Your task to perform on an android device: Is it going to rain tomorrow? Image 0: 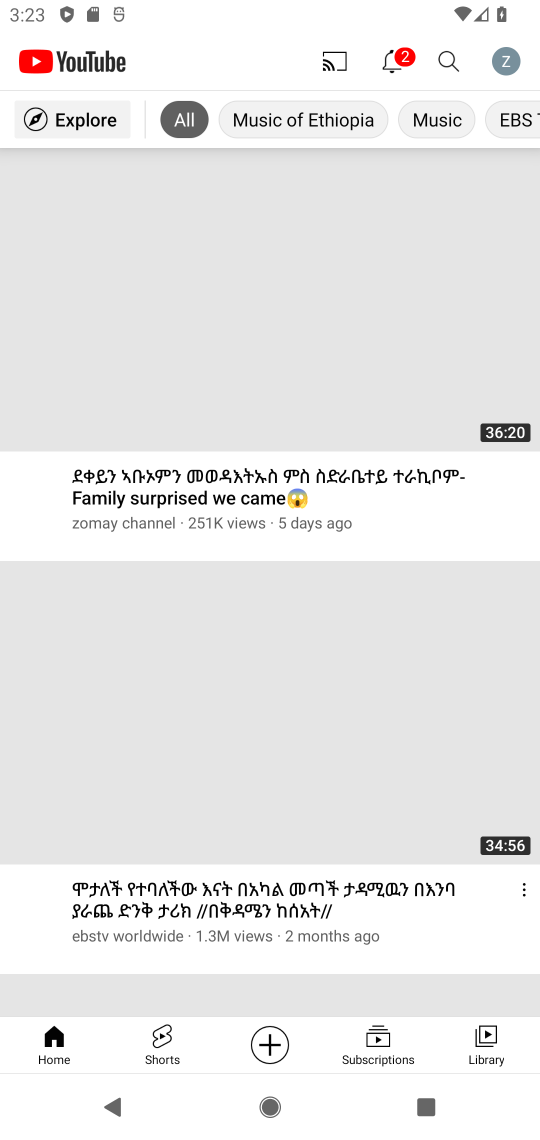
Step 0: press home button
Your task to perform on an android device: Is it going to rain tomorrow? Image 1: 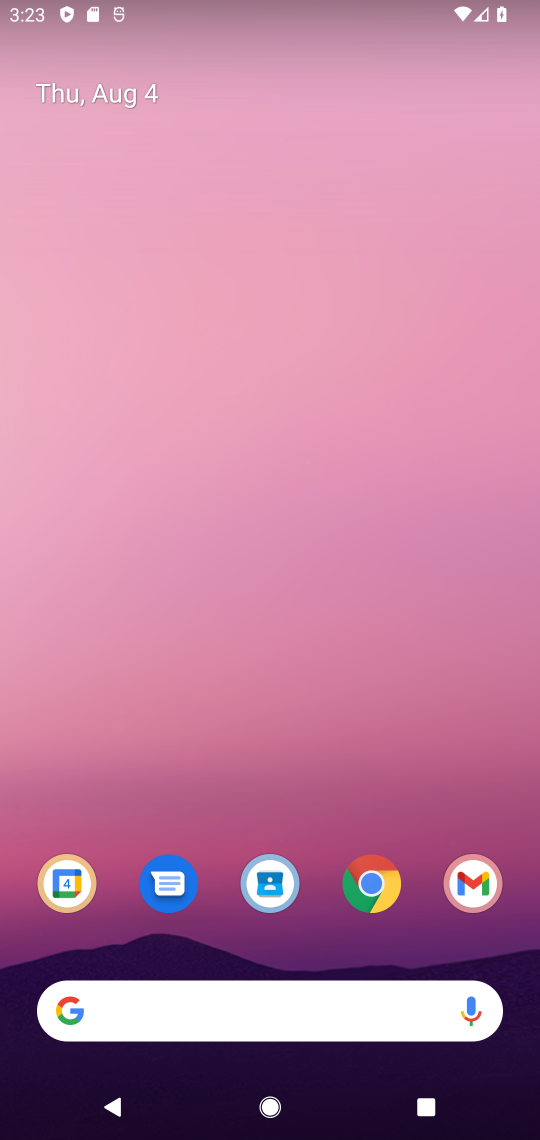
Step 1: drag from (410, 861) to (241, 101)
Your task to perform on an android device: Is it going to rain tomorrow? Image 2: 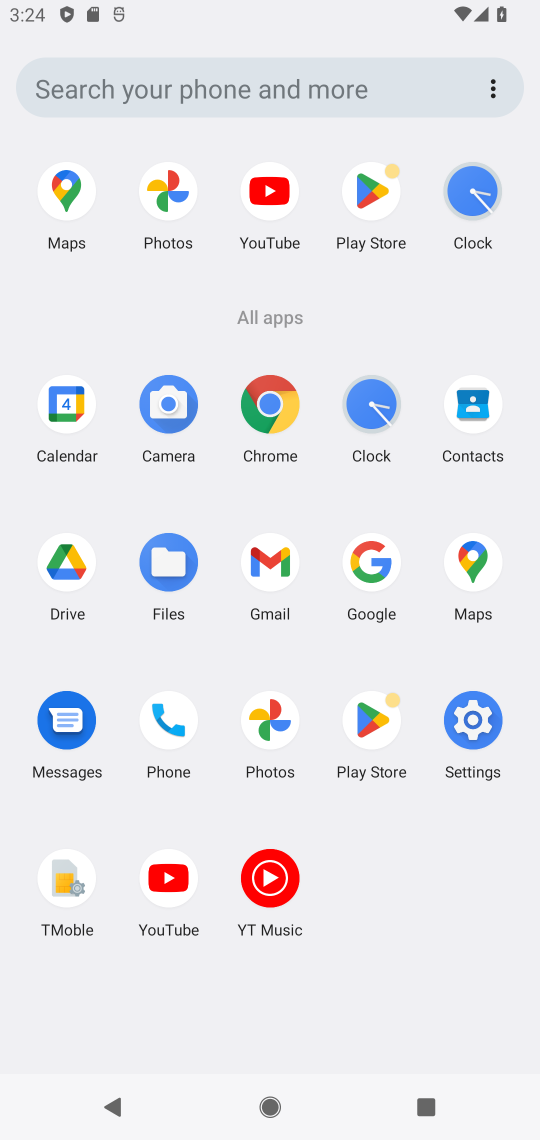
Step 2: click (366, 555)
Your task to perform on an android device: Is it going to rain tomorrow? Image 3: 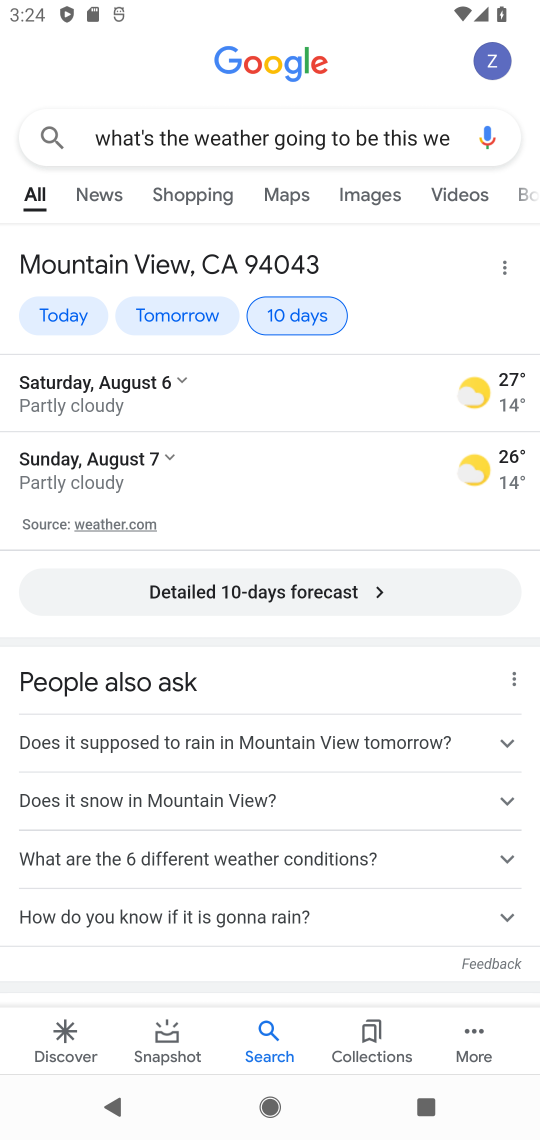
Step 3: press back button
Your task to perform on an android device: Is it going to rain tomorrow? Image 4: 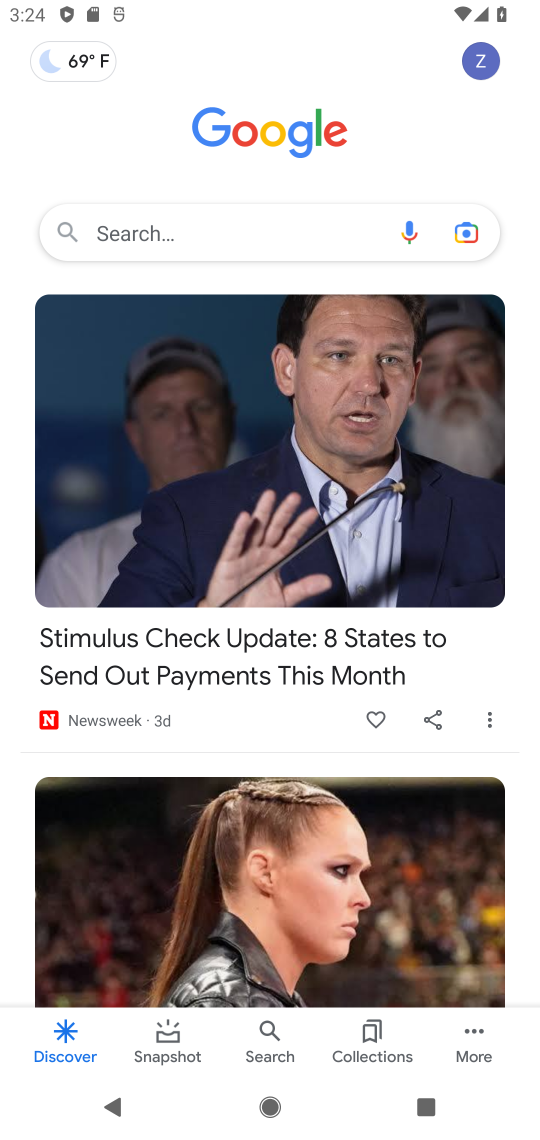
Step 4: click (119, 219)
Your task to perform on an android device: Is it going to rain tomorrow? Image 5: 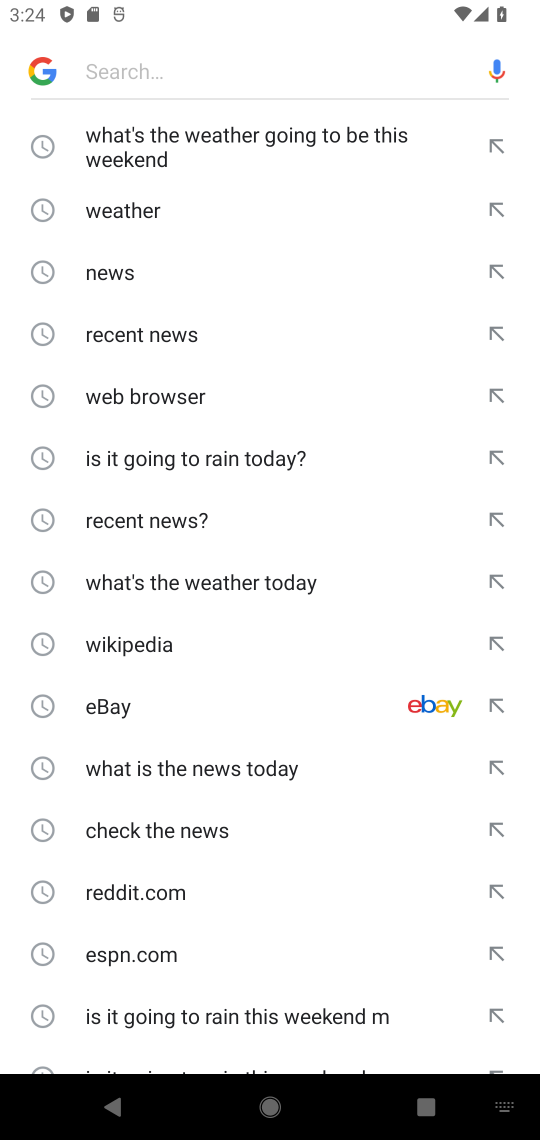
Step 5: drag from (277, 923) to (295, 352)
Your task to perform on an android device: Is it going to rain tomorrow? Image 6: 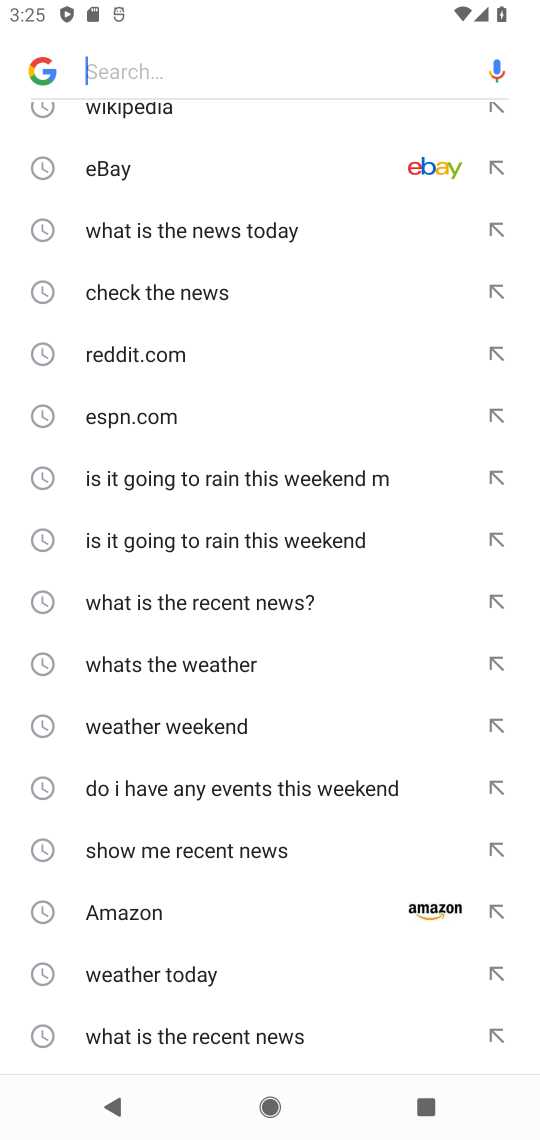
Step 6: drag from (188, 930) to (205, 387)
Your task to perform on an android device: Is it going to rain tomorrow? Image 7: 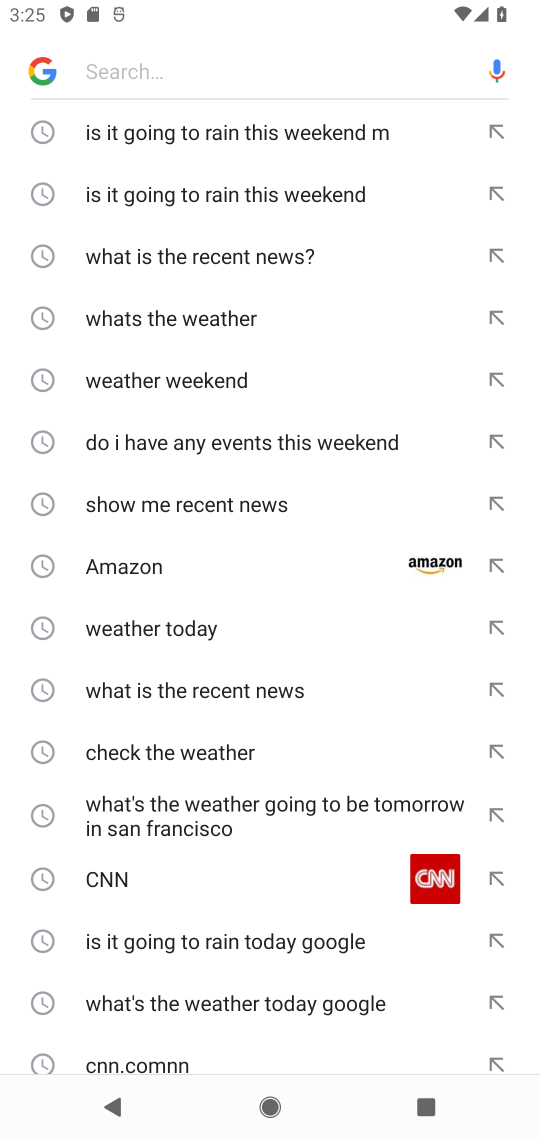
Step 7: type "Is it going to rain tomorrow?"
Your task to perform on an android device: Is it going to rain tomorrow? Image 8: 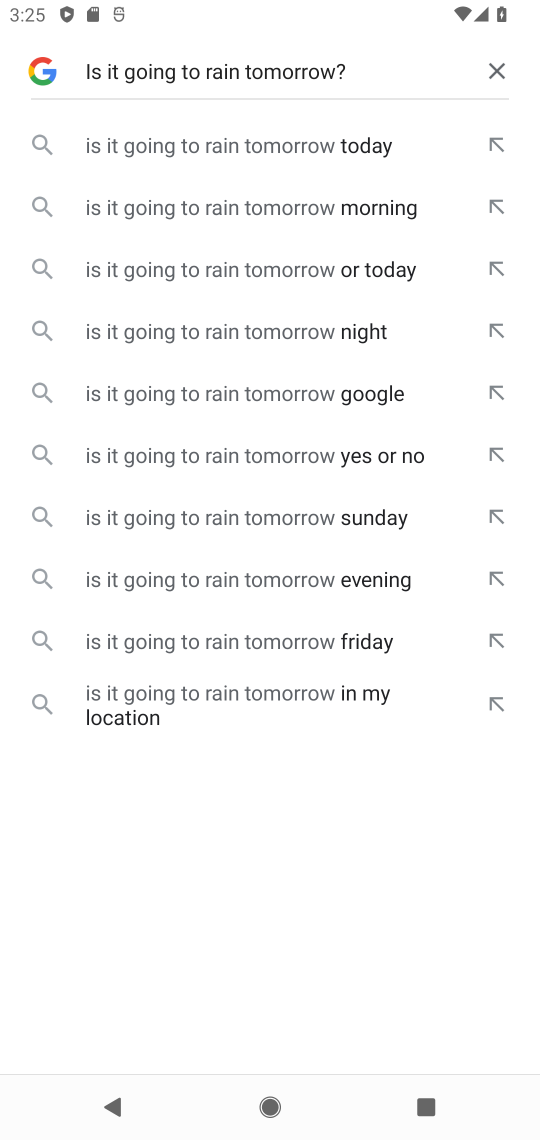
Step 8: click (201, 153)
Your task to perform on an android device: Is it going to rain tomorrow? Image 9: 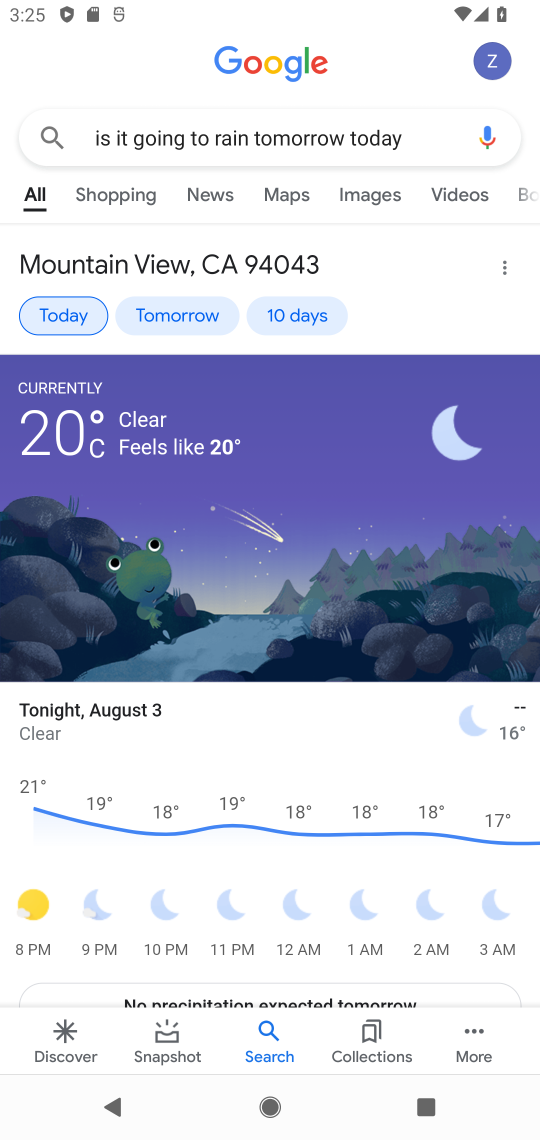
Step 9: task complete